Your task to perform on an android device: toggle notification dots Image 0: 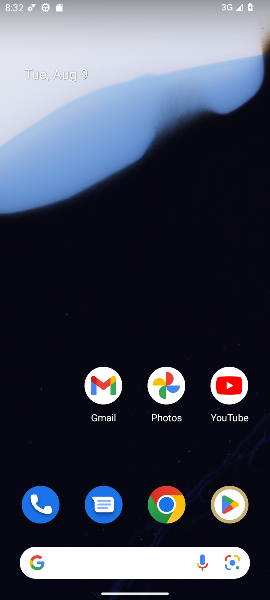
Step 0: drag from (132, 470) to (83, 276)
Your task to perform on an android device: toggle notification dots Image 1: 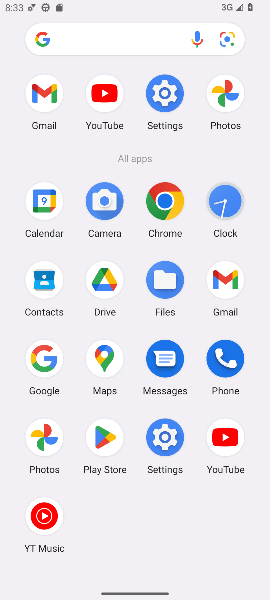
Step 1: click (163, 79)
Your task to perform on an android device: toggle notification dots Image 2: 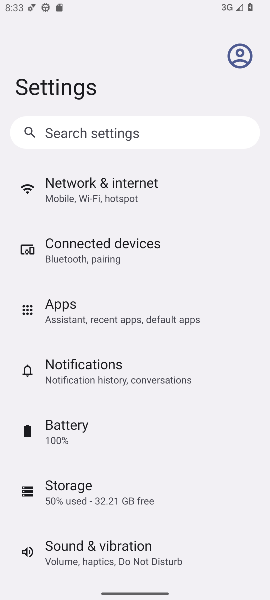
Step 2: click (86, 365)
Your task to perform on an android device: toggle notification dots Image 3: 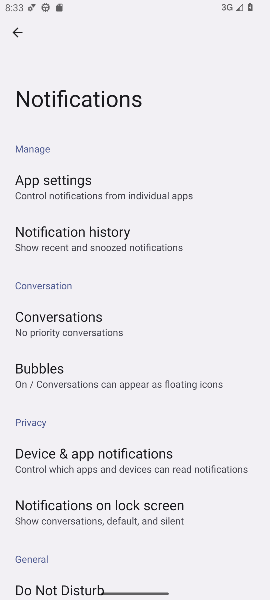
Step 3: drag from (150, 416) to (146, 128)
Your task to perform on an android device: toggle notification dots Image 4: 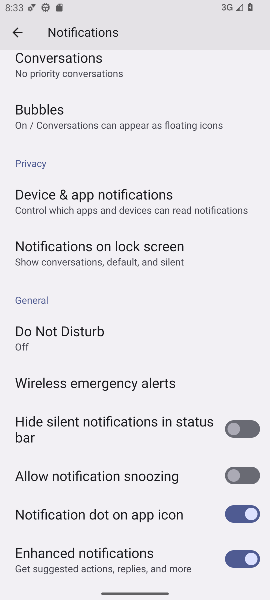
Step 4: click (253, 517)
Your task to perform on an android device: toggle notification dots Image 5: 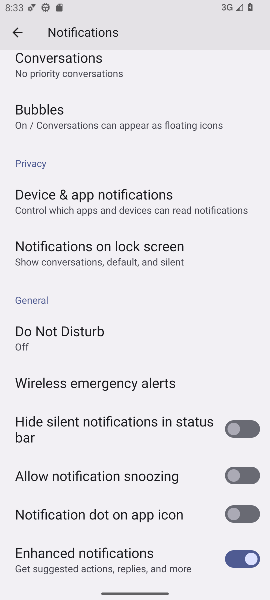
Step 5: task complete